Your task to perform on an android device: What is the recent news? Image 0: 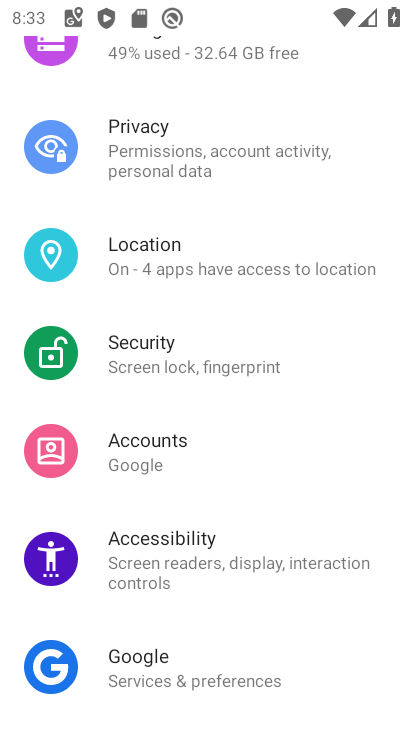
Step 0: press home button
Your task to perform on an android device: What is the recent news? Image 1: 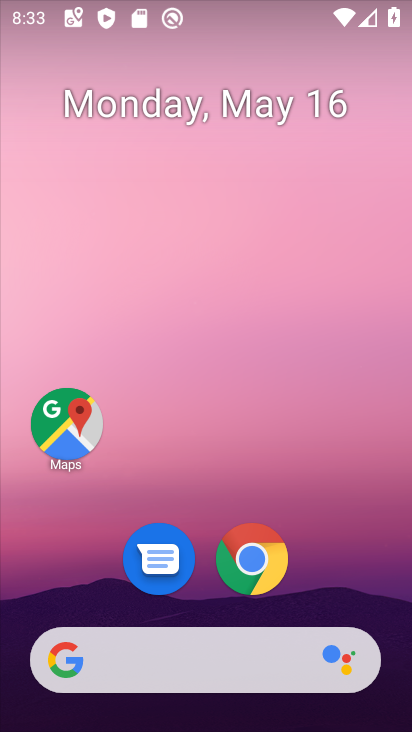
Step 1: drag from (180, 593) to (183, 17)
Your task to perform on an android device: What is the recent news? Image 2: 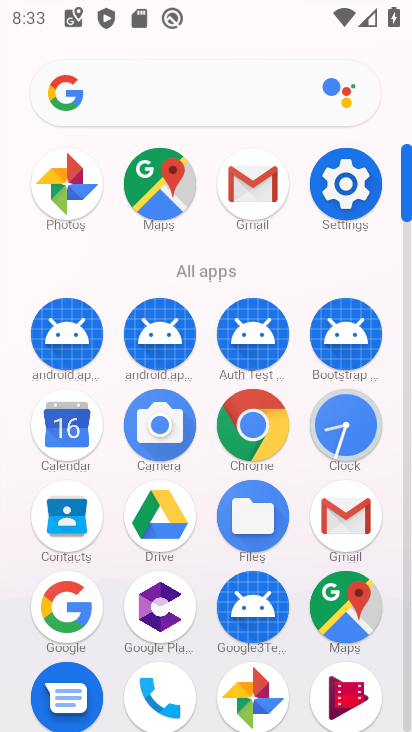
Step 2: click (165, 91)
Your task to perform on an android device: What is the recent news? Image 3: 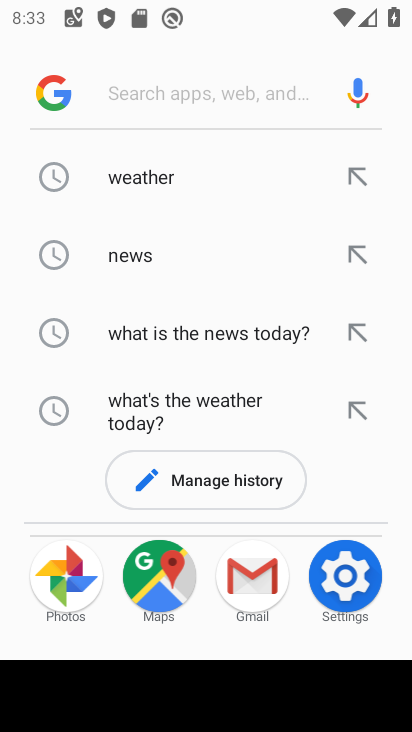
Step 3: type "what is the recent news"
Your task to perform on an android device: What is the recent news? Image 4: 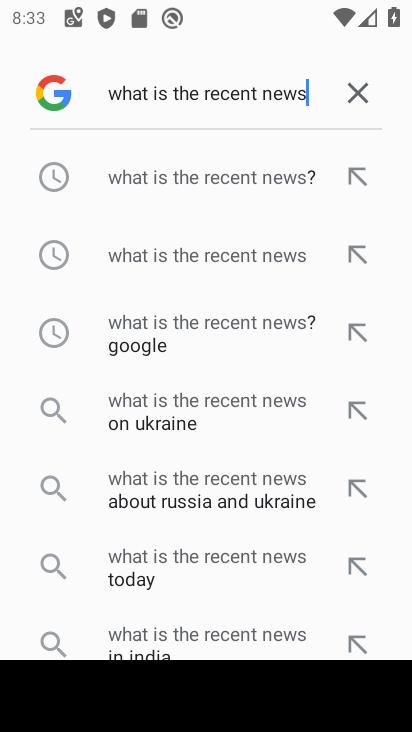
Step 4: click (255, 189)
Your task to perform on an android device: What is the recent news? Image 5: 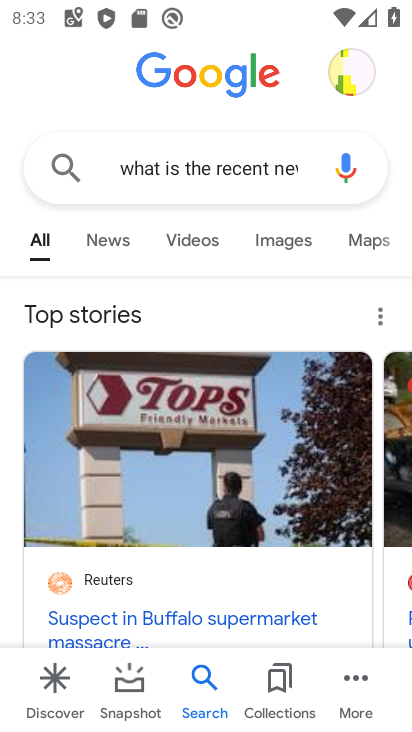
Step 5: click (90, 231)
Your task to perform on an android device: What is the recent news? Image 6: 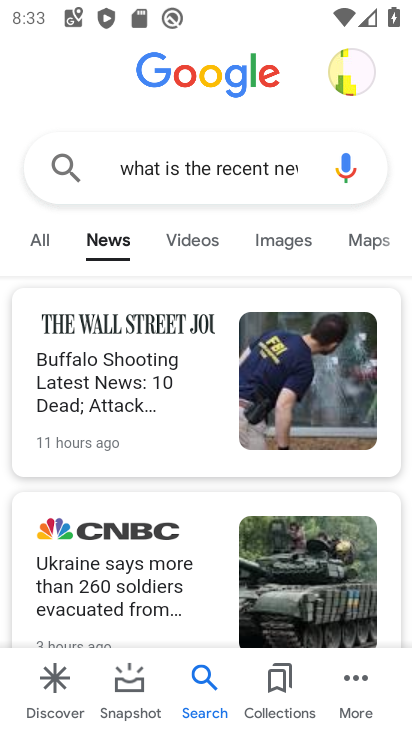
Step 6: task complete